Your task to perform on an android device: Search for seafood restaurants on Google Maps Image 0: 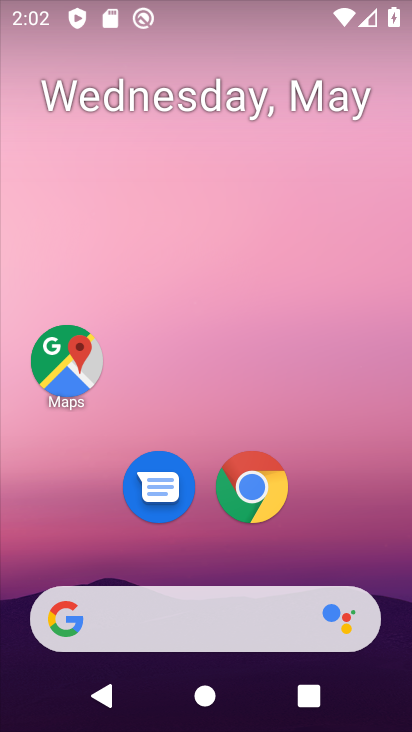
Step 0: click (360, 512)
Your task to perform on an android device: Search for seafood restaurants on Google Maps Image 1: 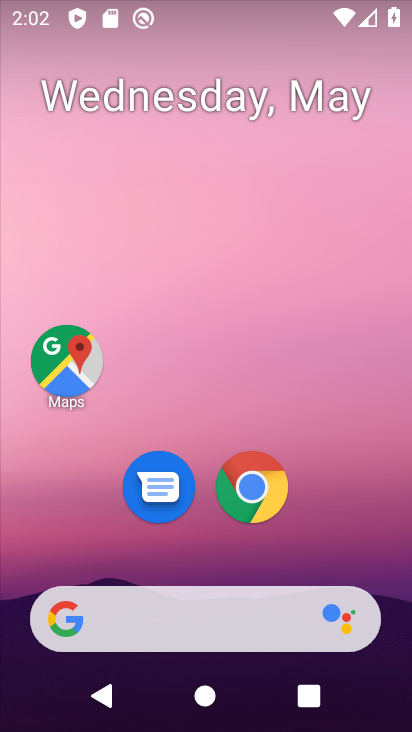
Step 1: click (65, 361)
Your task to perform on an android device: Search for seafood restaurants on Google Maps Image 2: 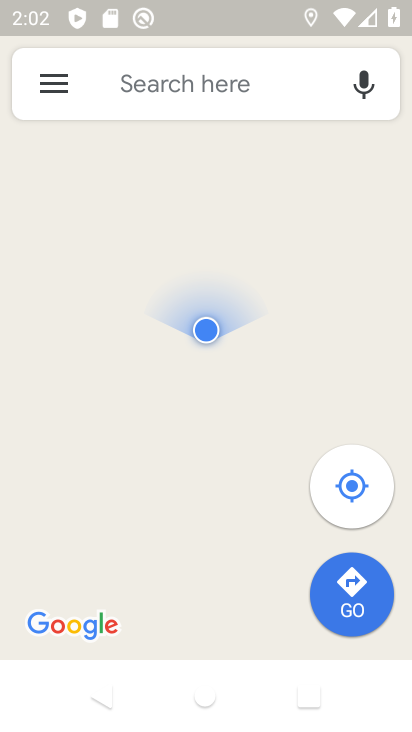
Step 2: click (209, 95)
Your task to perform on an android device: Search for seafood restaurants on Google Maps Image 3: 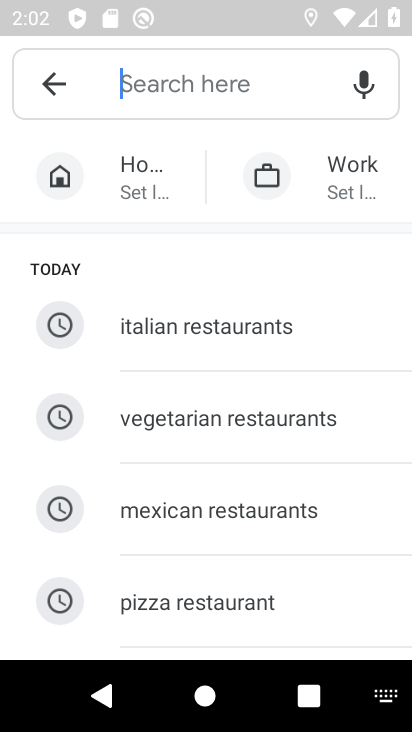
Step 3: drag from (246, 618) to (199, 204)
Your task to perform on an android device: Search for seafood restaurants on Google Maps Image 4: 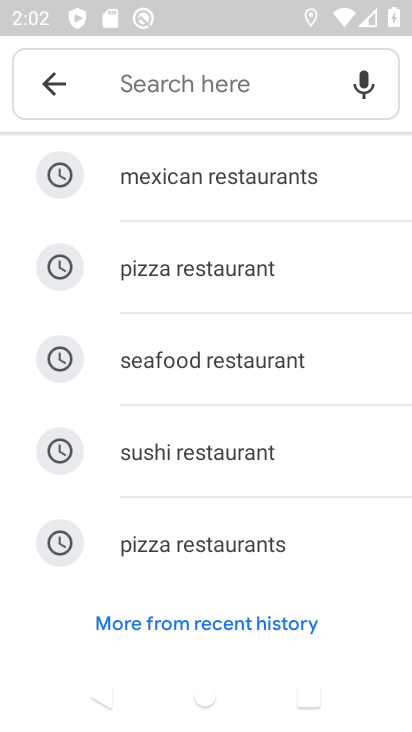
Step 4: click (151, 372)
Your task to perform on an android device: Search for seafood restaurants on Google Maps Image 5: 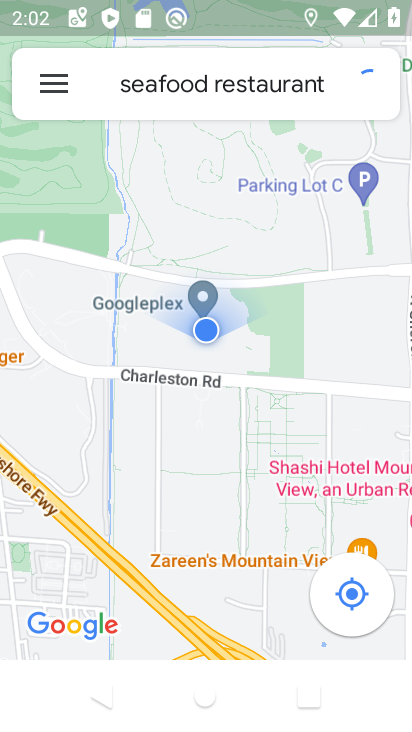
Step 5: task complete